Your task to perform on an android device: find snoozed emails in the gmail app Image 0: 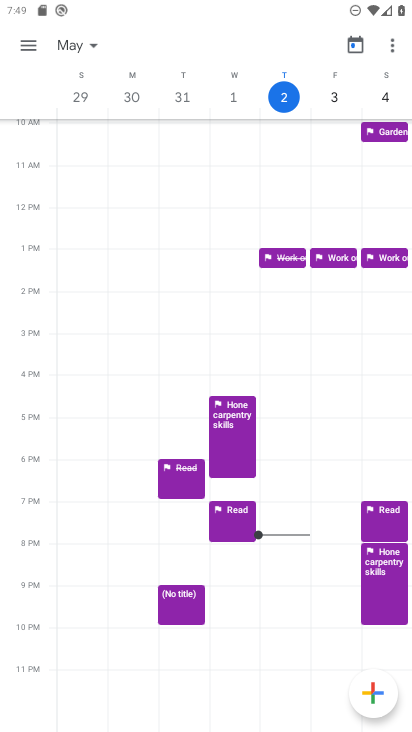
Step 0: press home button
Your task to perform on an android device: find snoozed emails in the gmail app Image 1: 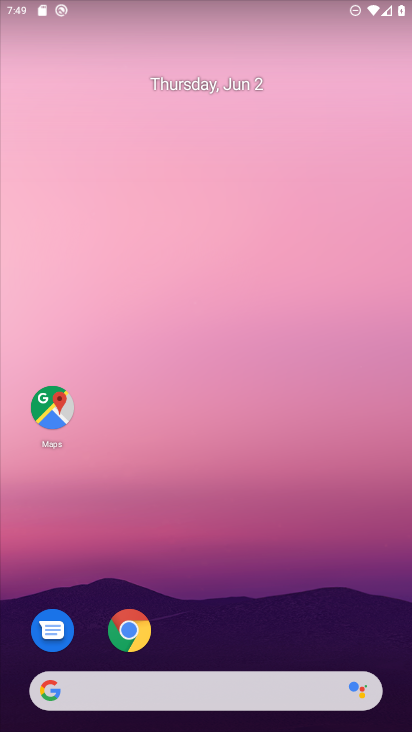
Step 1: drag from (138, 731) to (158, 68)
Your task to perform on an android device: find snoozed emails in the gmail app Image 2: 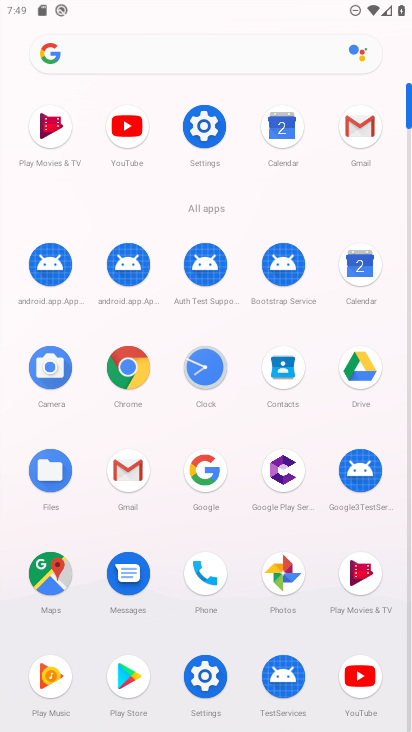
Step 2: click (124, 482)
Your task to perform on an android device: find snoozed emails in the gmail app Image 3: 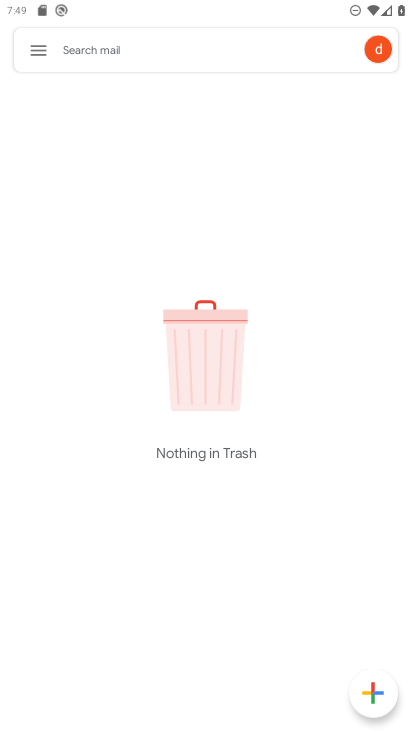
Step 3: click (37, 61)
Your task to perform on an android device: find snoozed emails in the gmail app Image 4: 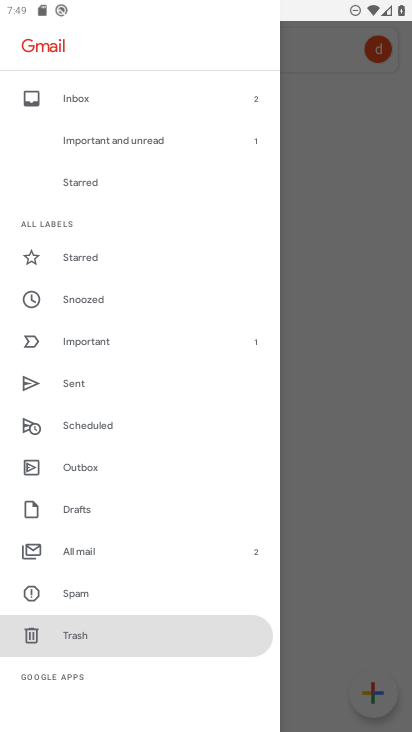
Step 4: click (90, 300)
Your task to perform on an android device: find snoozed emails in the gmail app Image 5: 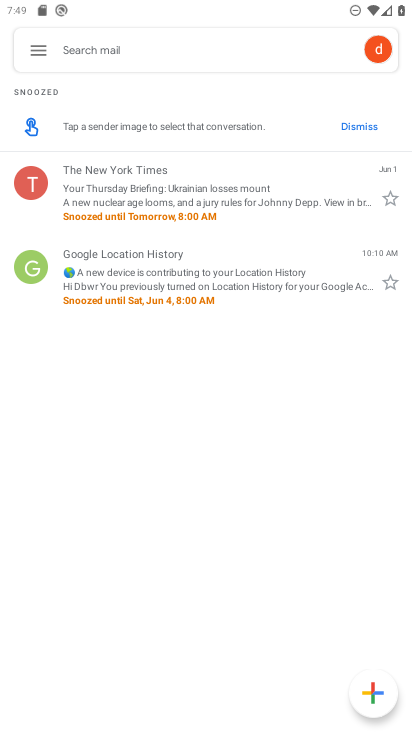
Step 5: click (92, 293)
Your task to perform on an android device: find snoozed emails in the gmail app Image 6: 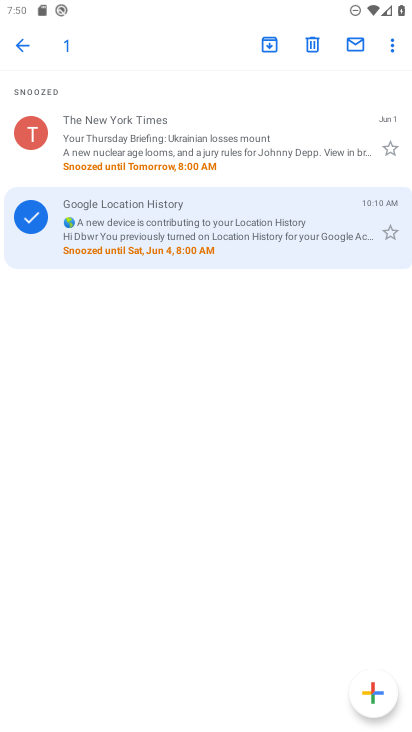
Step 6: task complete